Your task to perform on an android device: empty trash in the gmail app Image 0: 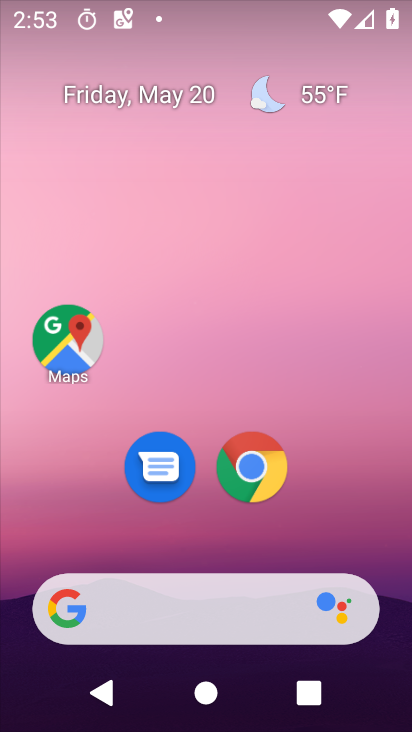
Step 0: drag from (247, 546) to (162, 58)
Your task to perform on an android device: empty trash in the gmail app Image 1: 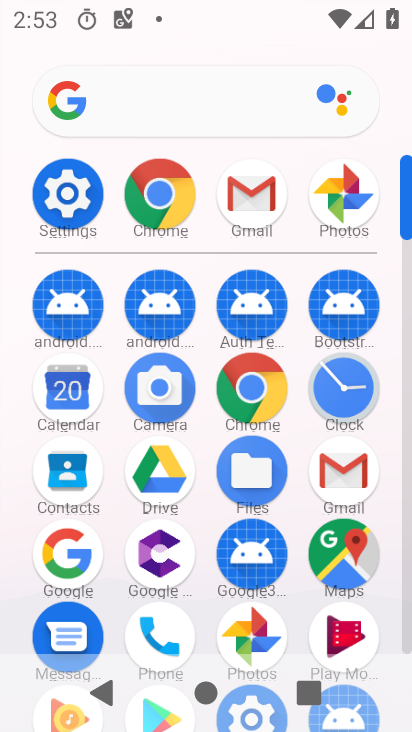
Step 1: click (347, 469)
Your task to perform on an android device: empty trash in the gmail app Image 2: 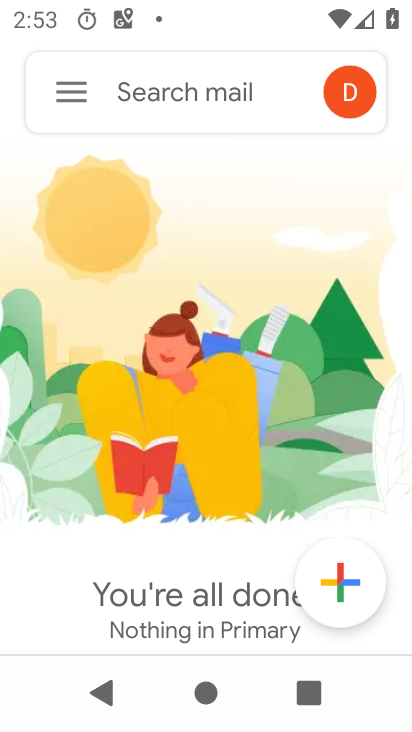
Step 2: click (58, 94)
Your task to perform on an android device: empty trash in the gmail app Image 3: 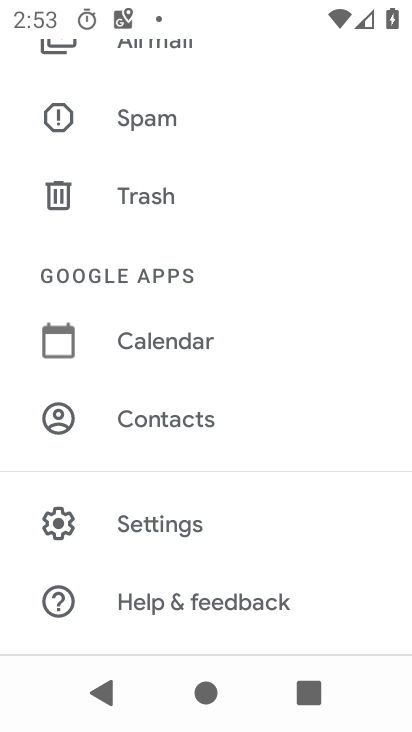
Step 3: drag from (200, 176) to (188, 344)
Your task to perform on an android device: empty trash in the gmail app Image 4: 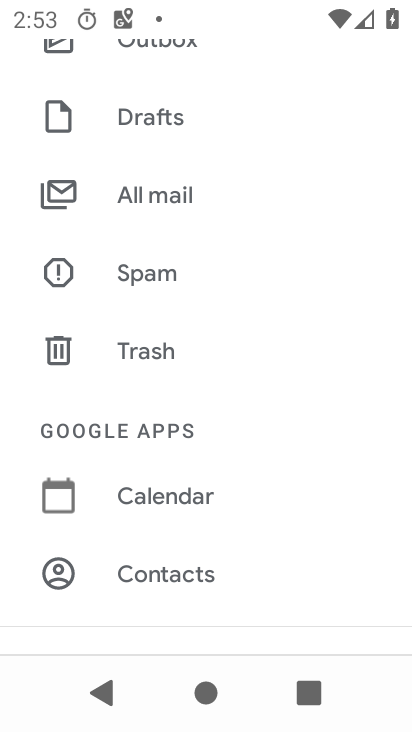
Step 4: click (113, 344)
Your task to perform on an android device: empty trash in the gmail app Image 5: 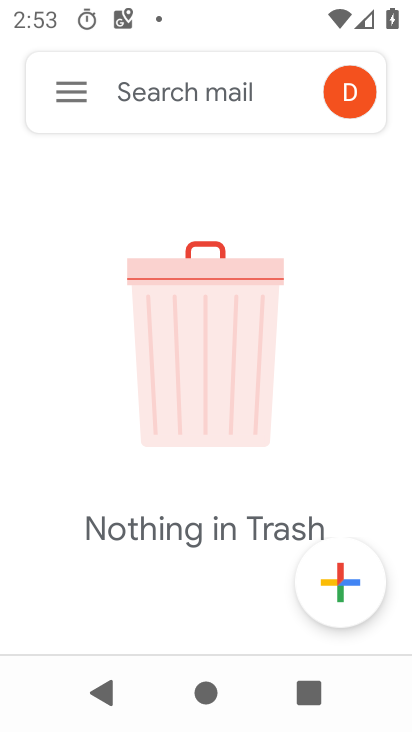
Step 5: task complete